Your task to perform on an android device: turn on bluetooth scan Image 0: 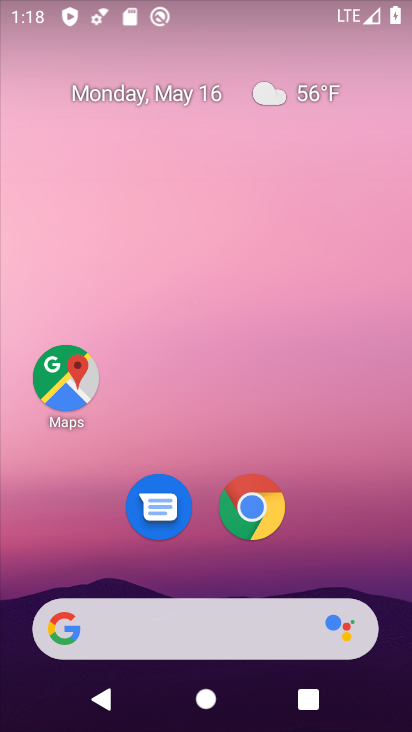
Step 0: drag from (185, 459) to (180, 194)
Your task to perform on an android device: turn on bluetooth scan Image 1: 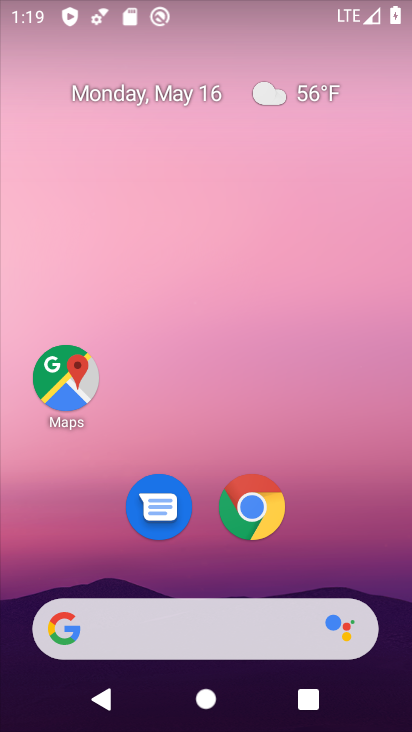
Step 1: drag from (206, 560) to (224, 84)
Your task to perform on an android device: turn on bluetooth scan Image 2: 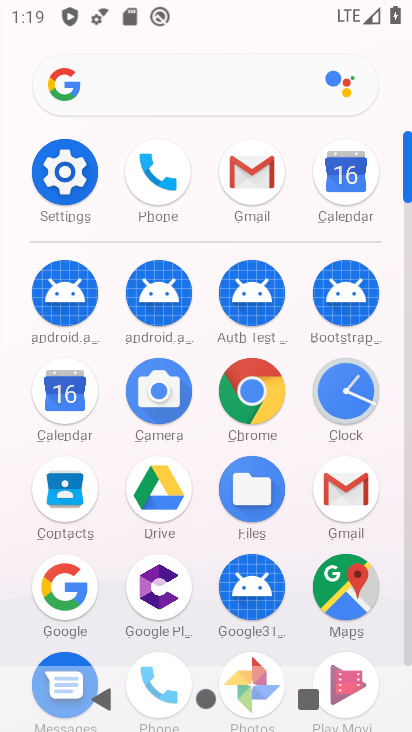
Step 2: click (82, 184)
Your task to perform on an android device: turn on bluetooth scan Image 3: 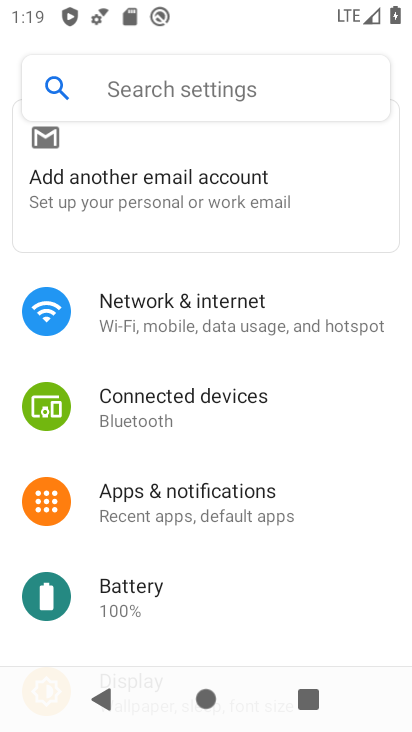
Step 3: drag from (209, 561) to (197, 416)
Your task to perform on an android device: turn on bluetooth scan Image 4: 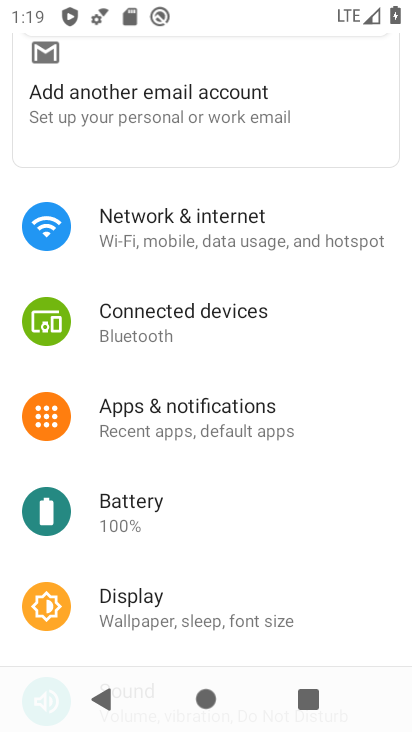
Step 4: drag from (199, 557) to (196, 338)
Your task to perform on an android device: turn on bluetooth scan Image 5: 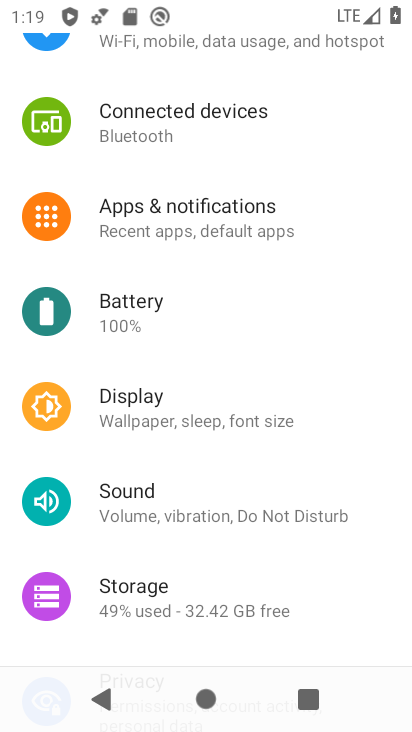
Step 5: drag from (190, 582) to (183, 328)
Your task to perform on an android device: turn on bluetooth scan Image 6: 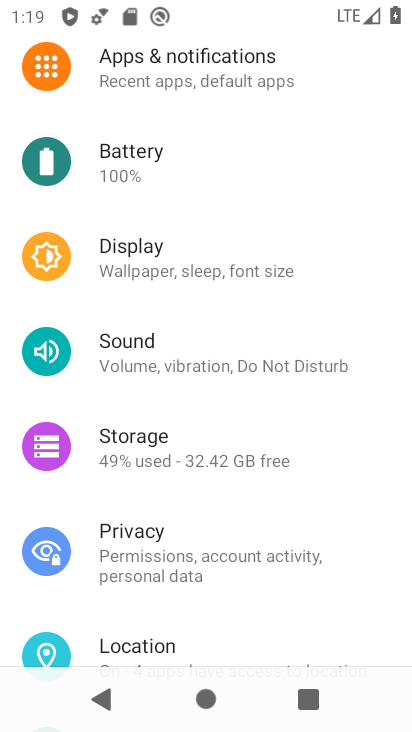
Step 6: drag from (172, 582) to (185, 380)
Your task to perform on an android device: turn on bluetooth scan Image 7: 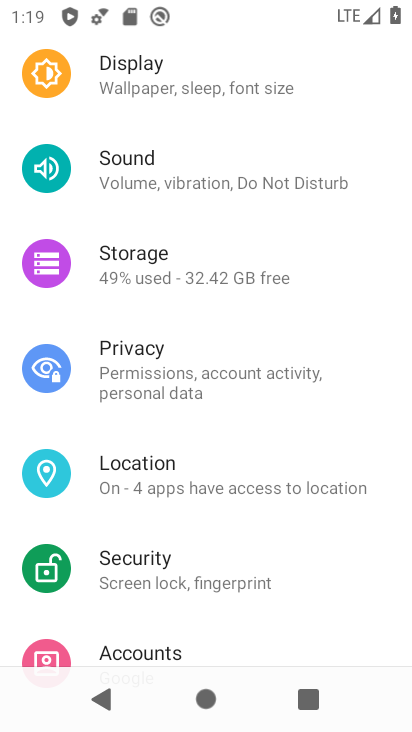
Step 7: click (188, 479)
Your task to perform on an android device: turn on bluetooth scan Image 8: 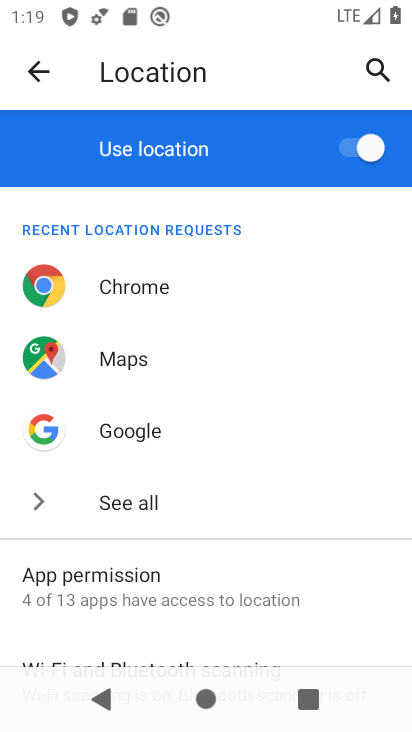
Step 8: drag from (228, 570) to (195, 256)
Your task to perform on an android device: turn on bluetooth scan Image 9: 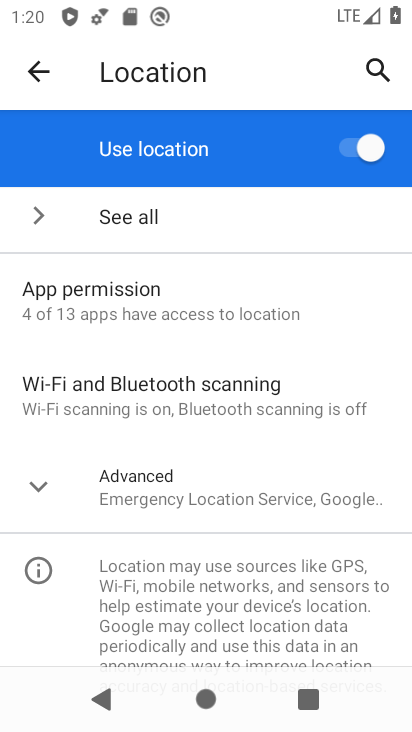
Step 9: drag from (254, 481) to (253, 360)
Your task to perform on an android device: turn on bluetooth scan Image 10: 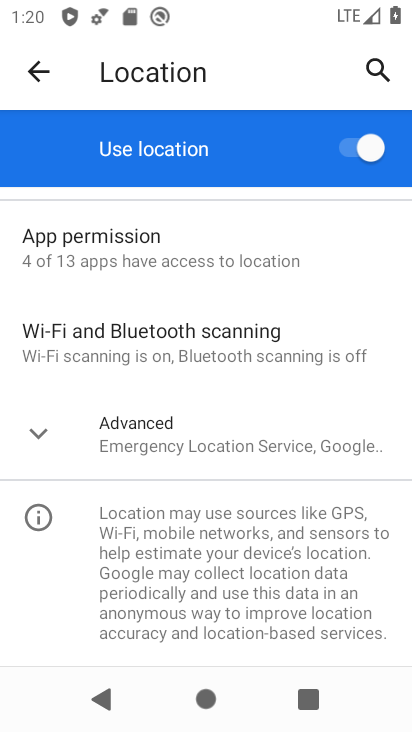
Step 10: click (211, 343)
Your task to perform on an android device: turn on bluetooth scan Image 11: 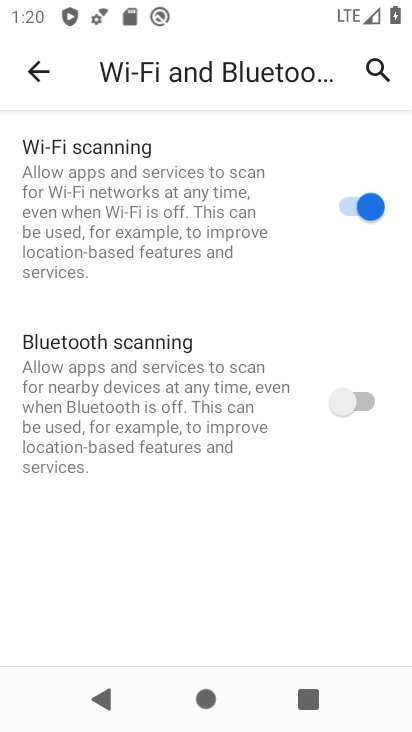
Step 11: click (359, 406)
Your task to perform on an android device: turn on bluetooth scan Image 12: 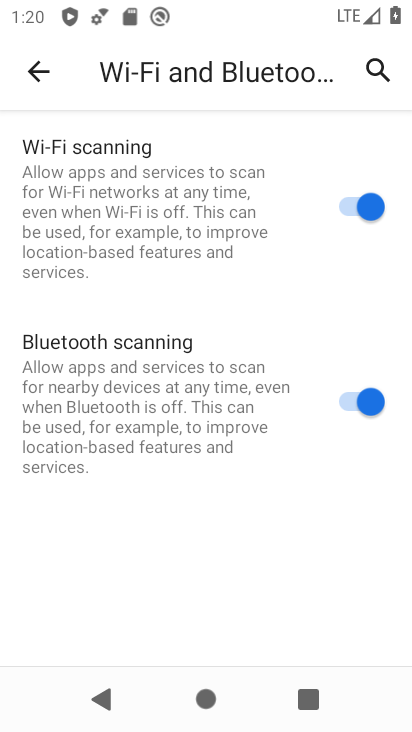
Step 12: task complete